Your task to perform on an android device: refresh tabs in the chrome app Image 0: 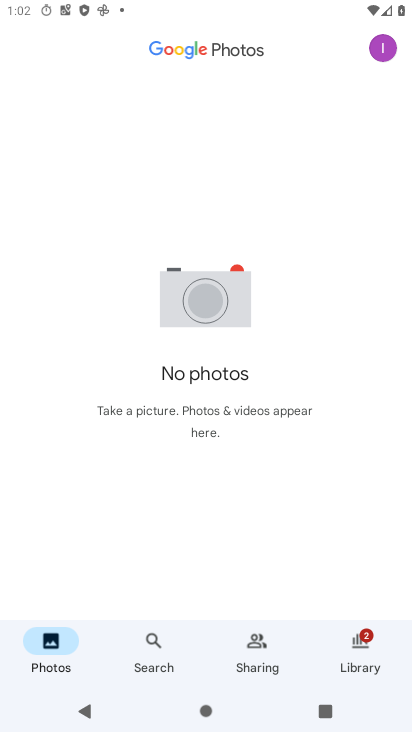
Step 0: press home button
Your task to perform on an android device: refresh tabs in the chrome app Image 1: 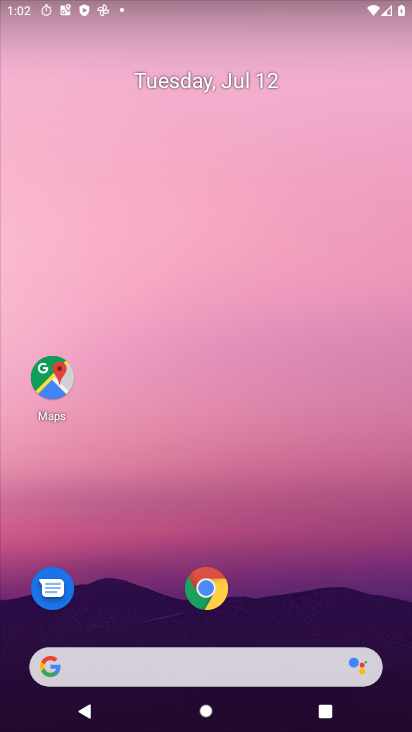
Step 1: click (194, 595)
Your task to perform on an android device: refresh tabs in the chrome app Image 2: 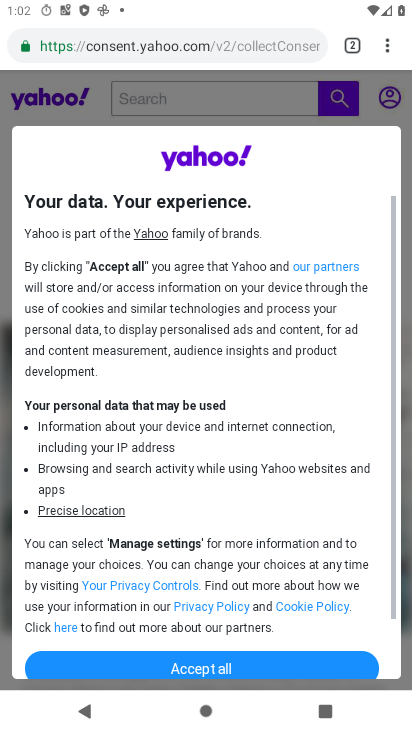
Step 2: click (384, 45)
Your task to perform on an android device: refresh tabs in the chrome app Image 3: 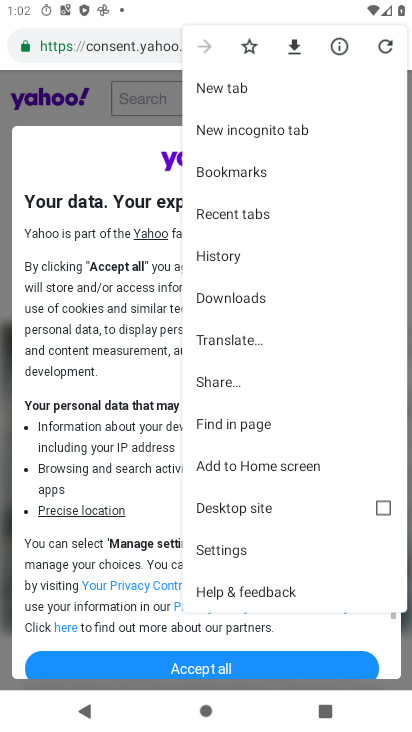
Step 3: click (380, 45)
Your task to perform on an android device: refresh tabs in the chrome app Image 4: 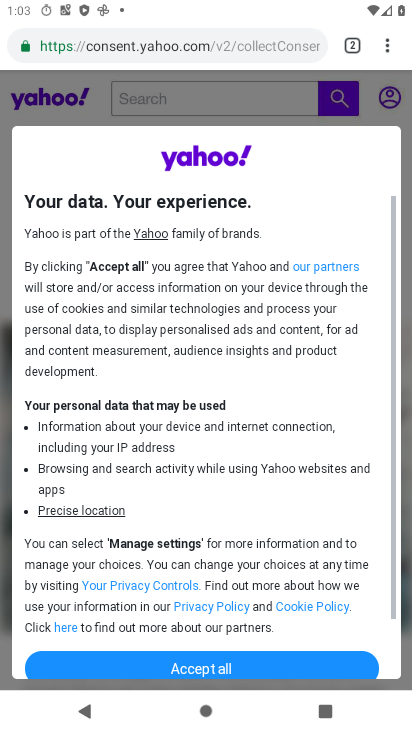
Step 4: task complete